Your task to perform on an android device: read, delete, or share a saved page in the chrome app Image 0: 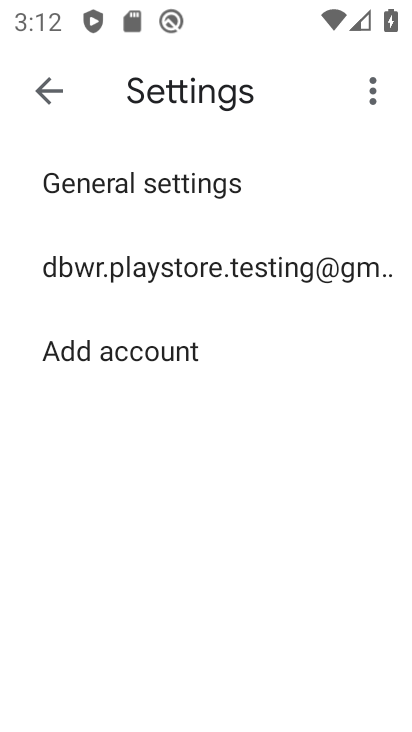
Step 0: press home button
Your task to perform on an android device: read, delete, or share a saved page in the chrome app Image 1: 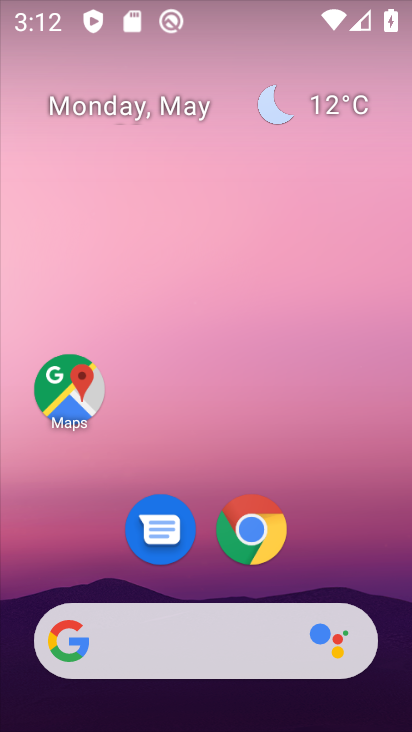
Step 1: click (249, 534)
Your task to perform on an android device: read, delete, or share a saved page in the chrome app Image 2: 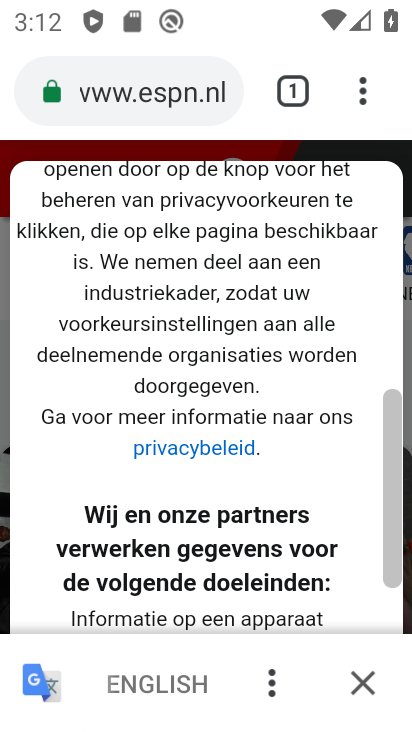
Step 2: drag from (364, 84) to (220, 587)
Your task to perform on an android device: read, delete, or share a saved page in the chrome app Image 3: 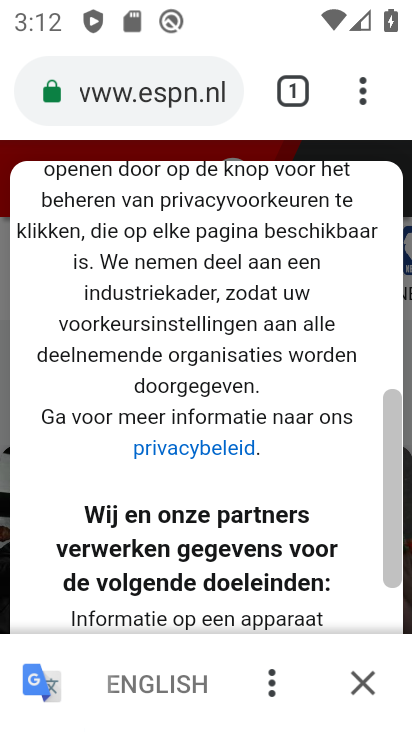
Step 3: click (370, 690)
Your task to perform on an android device: read, delete, or share a saved page in the chrome app Image 4: 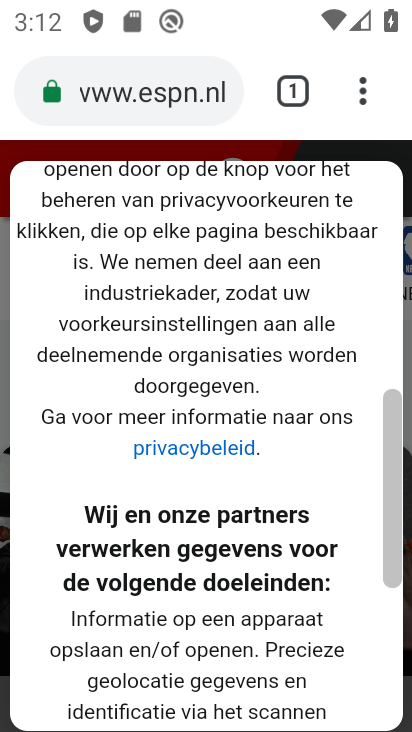
Step 4: task complete